Your task to perform on an android device: show emergency info Image 0: 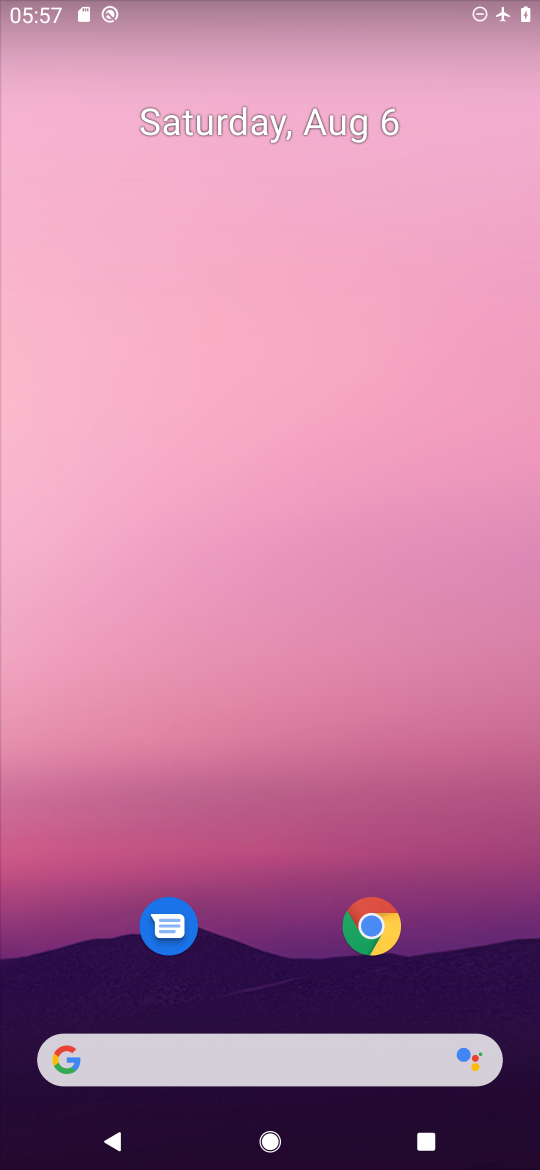
Step 0: drag from (252, 969) to (253, 227)
Your task to perform on an android device: show emergency info Image 1: 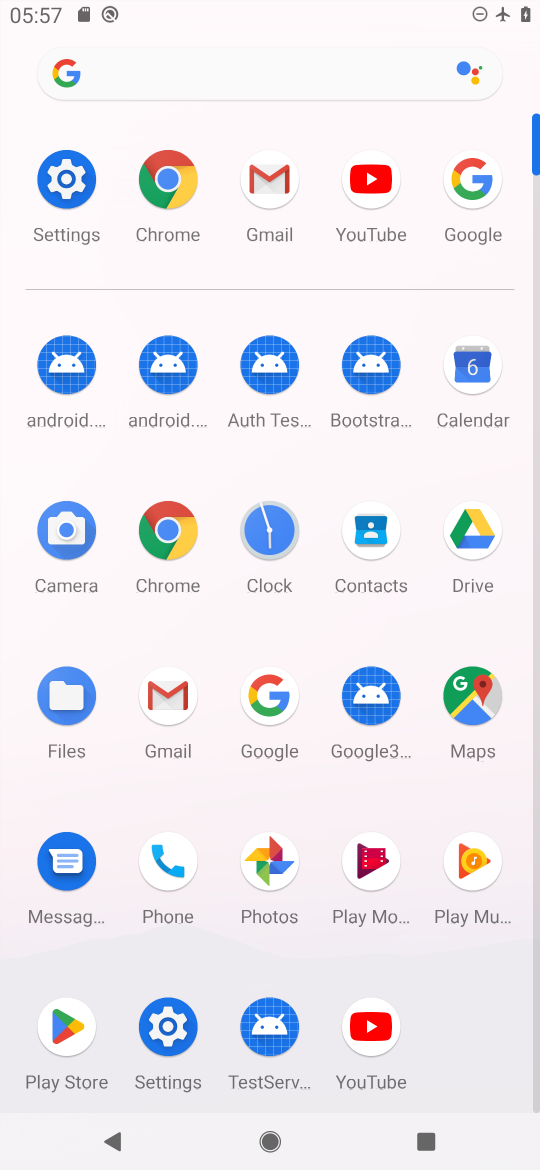
Step 1: click (86, 178)
Your task to perform on an android device: show emergency info Image 2: 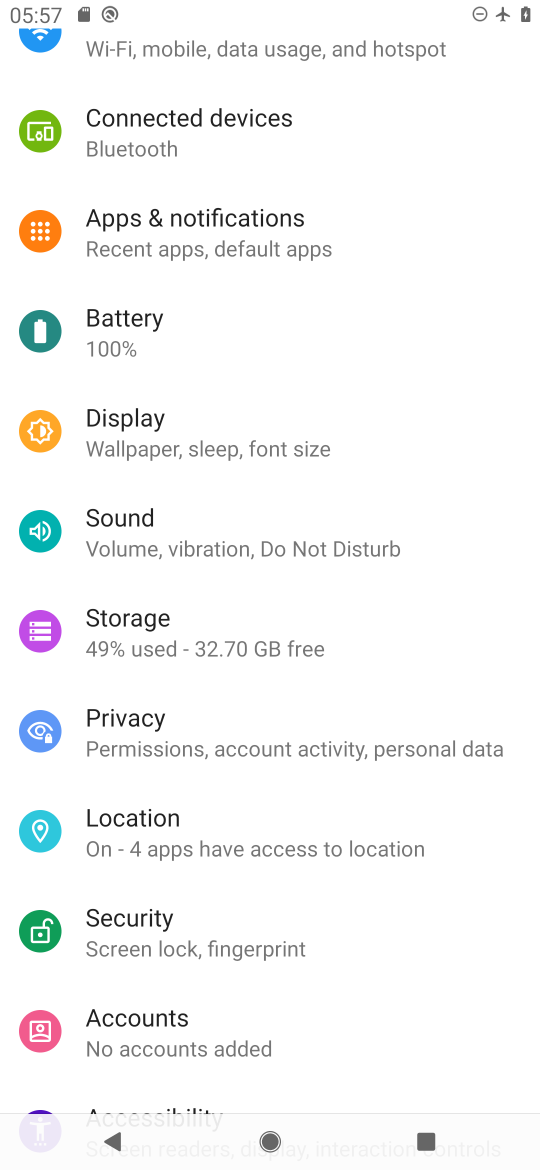
Step 2: drag from (278, 785) to (278, 181)
Your task to perform on an android device: show emergency info Image 3: 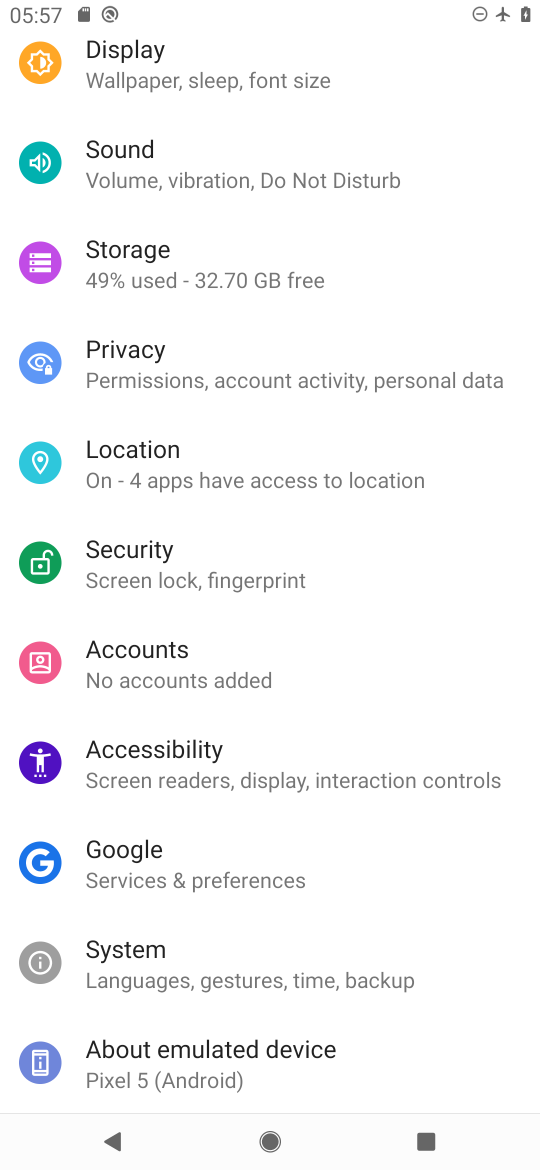
Step 3: click (229, 1057)
Your task to perform on an android device: show emergency info Image 4: 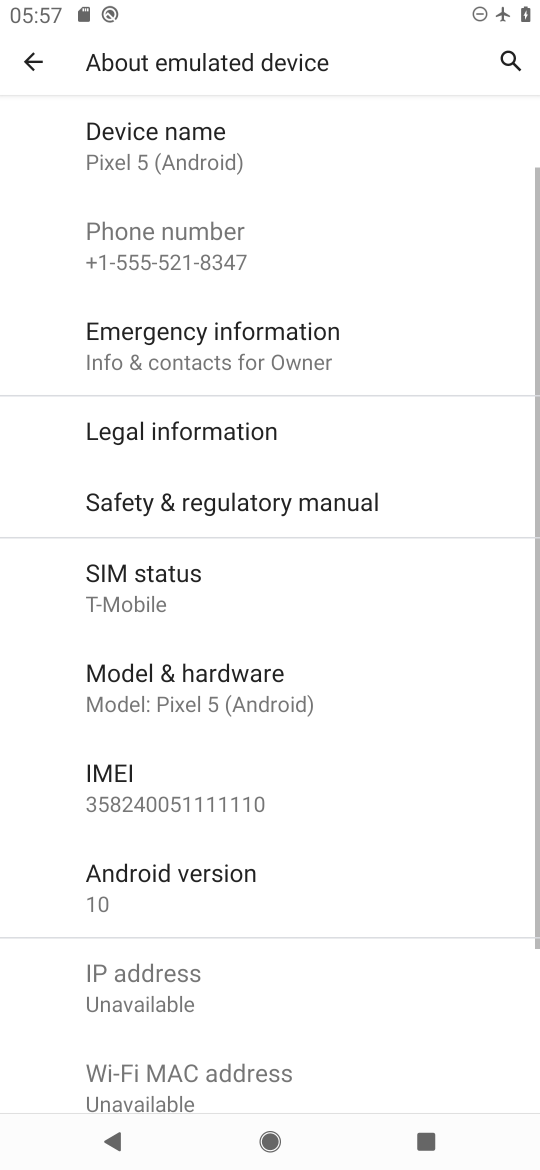
Step 4: click (210, 341)
Your task to perform on an android device: show emergency info Image 5: 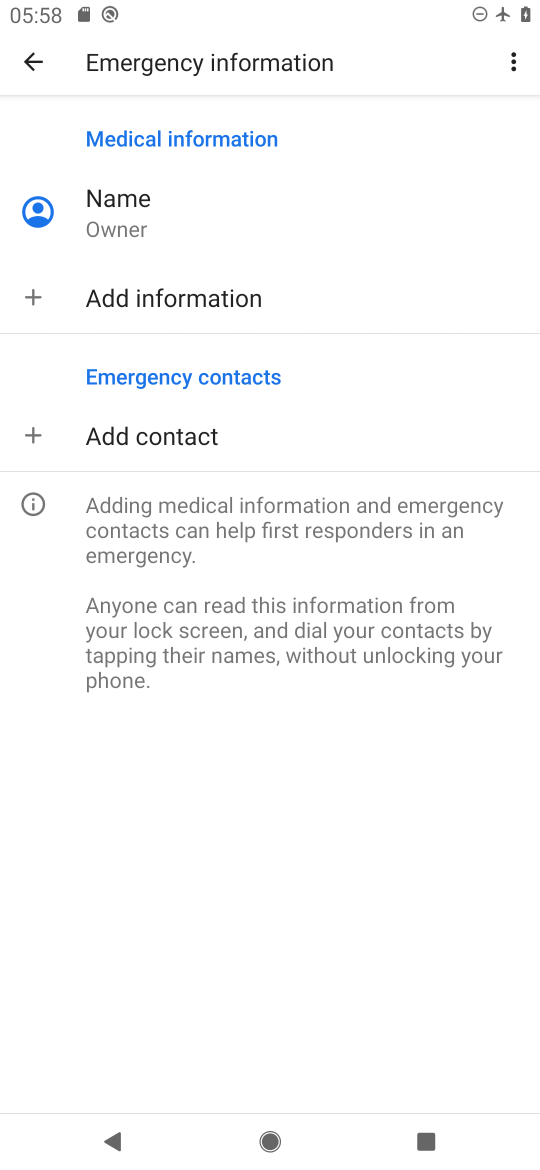
Step 5: task complete